Your task to perform on an android device: Go to Google Image 0: 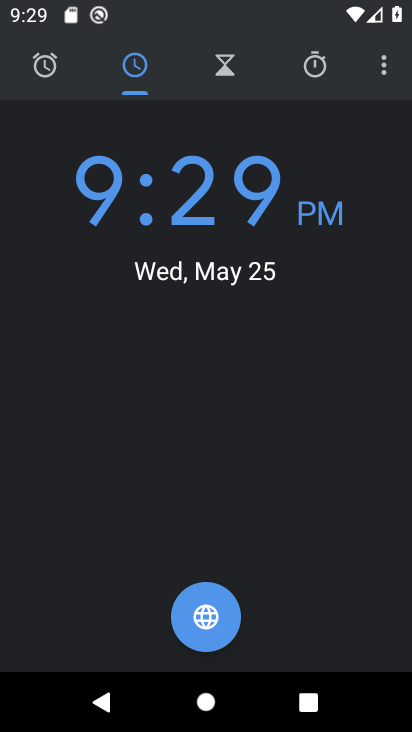
Step 0: press home button
Your task to perform on an android device: Go to Google Image 1: 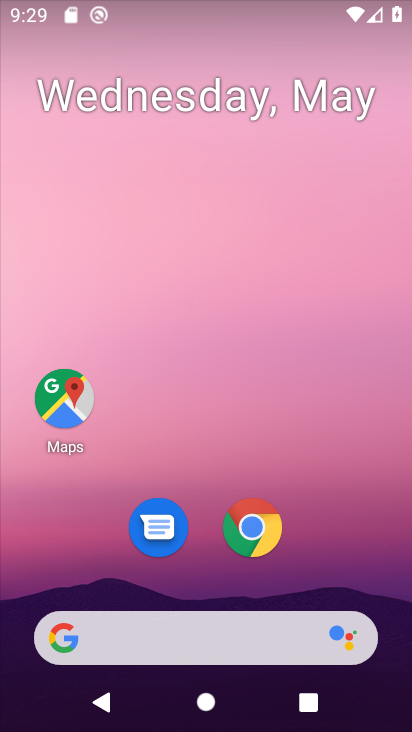
Step 1: drag from (212, 554) to (204, 90)
Your task to perform on an android device: Go to Google Image 2: 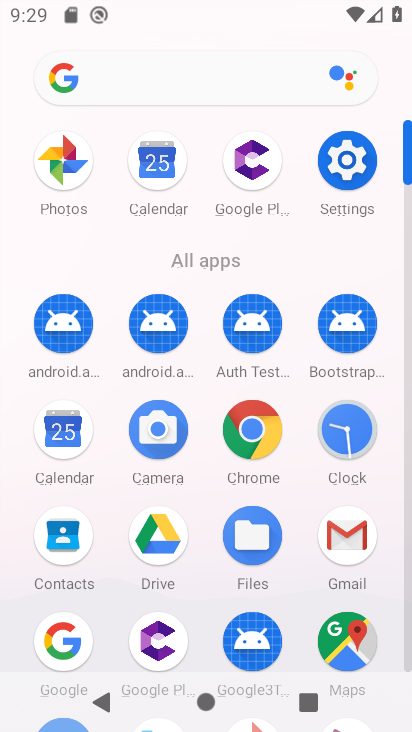
Step 2: click (74, 626)
Your task to perform on an android device: Go to Google Image 3: 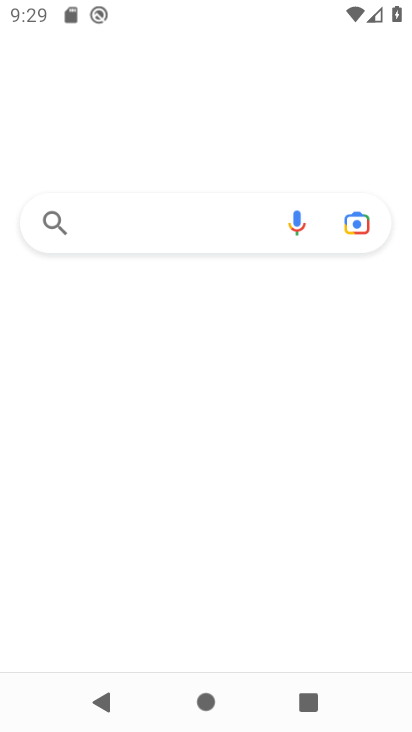
Step 3: task complete